Your task to perform on an android device: toggle improve location accuracy Image 0: 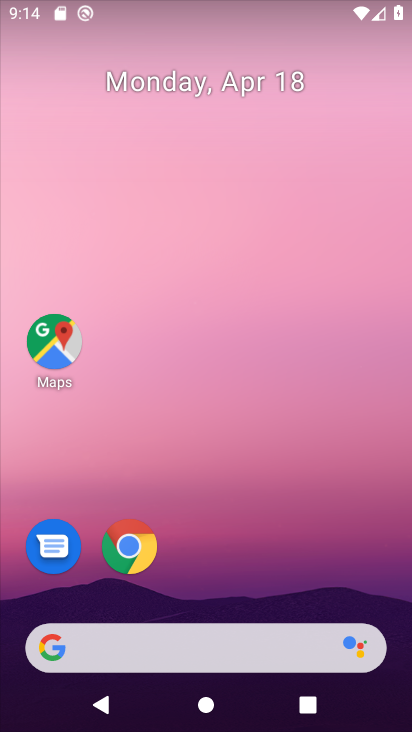
Step 0: drag from (285, 572) to (334, 123)
Your task to perform on an android device: toggle improve location accuracy Image 1: 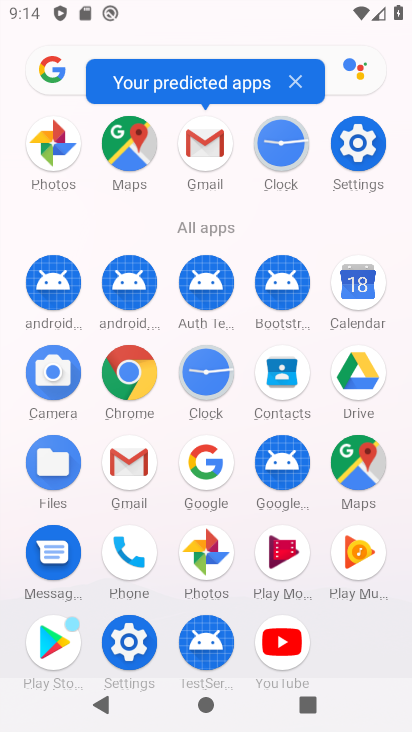
Step 1: click (369, 154)
Your task to perform on an android device: toggle improve location accuracy Image 2: 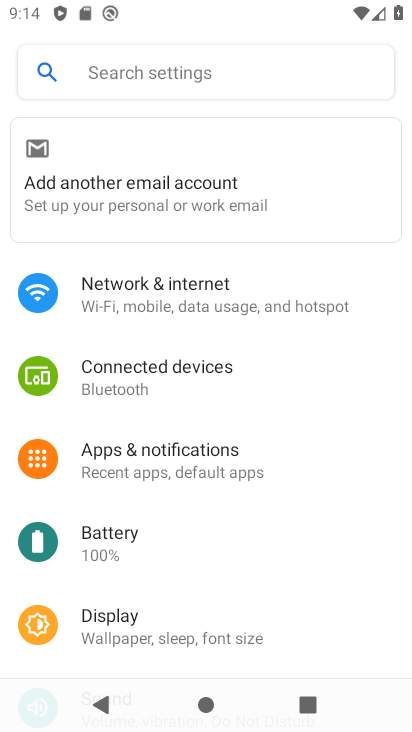
Step 2: drag from (220, 519) to (252, 189)
Your task to perform on an android device: toggle improve location accuracy Image 3: 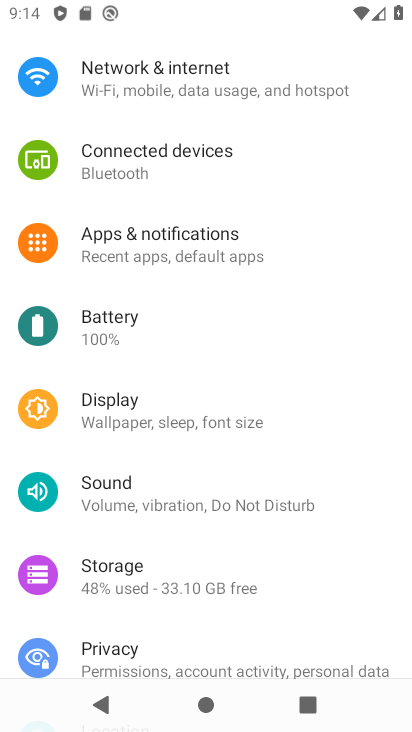
Step 3: drag from (250, 517) to (273, 252)
Your task to perform on an android device: toggle improve location accuracy Image 4: 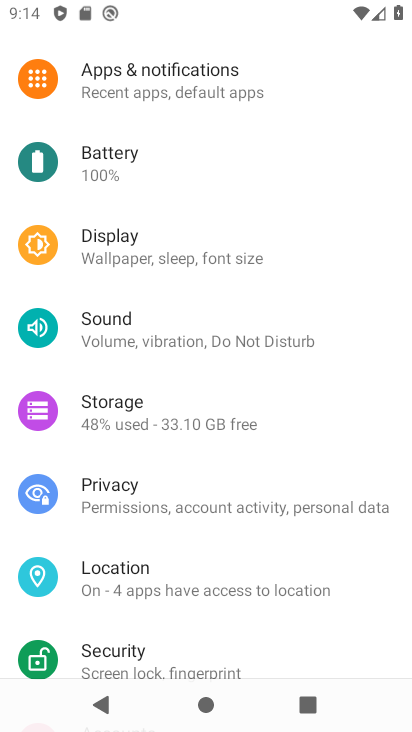
Step 4: click (207, 587)
Your task to perform on an android device: toggle improve location accuracy Image 5: 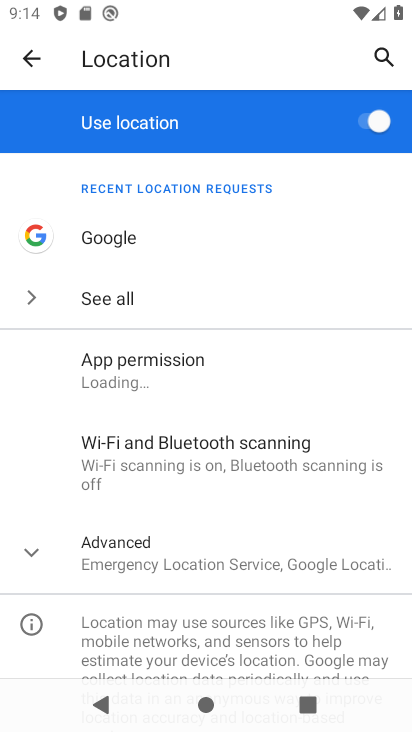
Step 5: click (32, 548)
Your task to perform on an android device: toggle improve location accuracy Image 6: 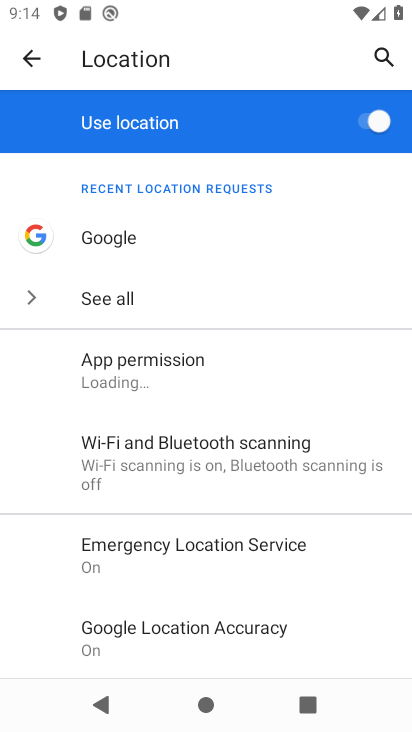
Step 6: drag from (250, 628) to (248, 456)
Your task to perform on an android device: toggle improve location accuracy Image 7: 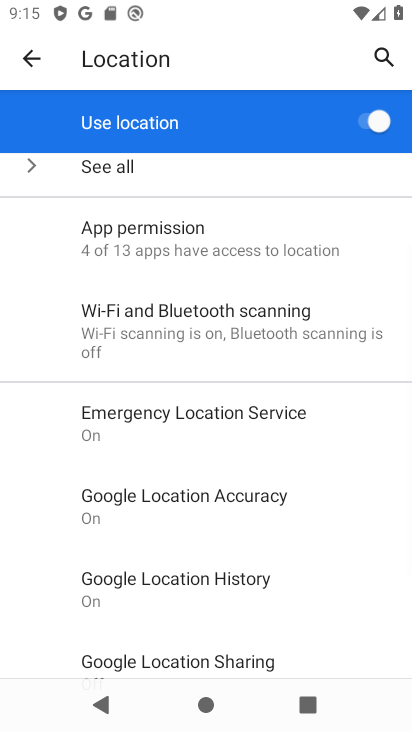
Step 7: click (93, 515)
Your task to perform on an android device: toggle improve location accuracy Image 8: 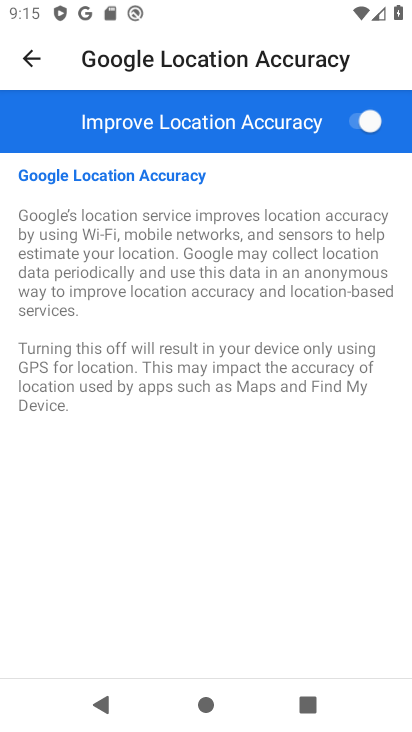
Step 8: click (363, 124)
Your task to perform on an android device: toggle improve location accuracy Image 9: 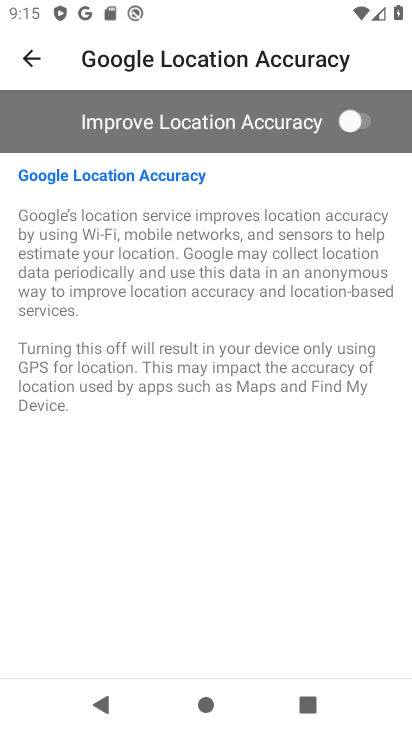
Step 9: task complete